Your task to perform on an android device: What is the recent news? Image 0: 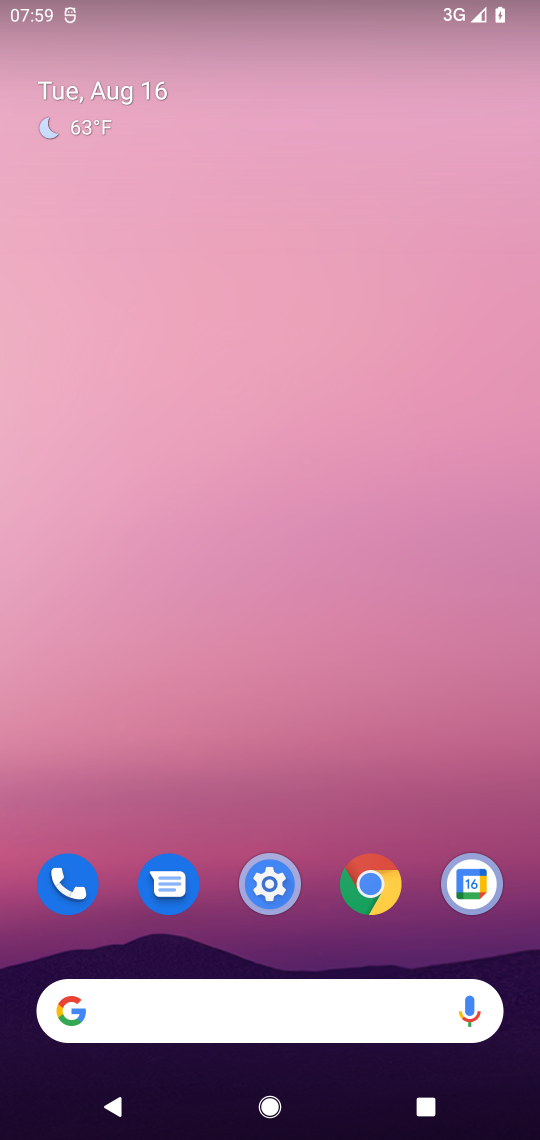
Step 0: press home button
Your task to perform on an android device: What is the recent news? Image 1: 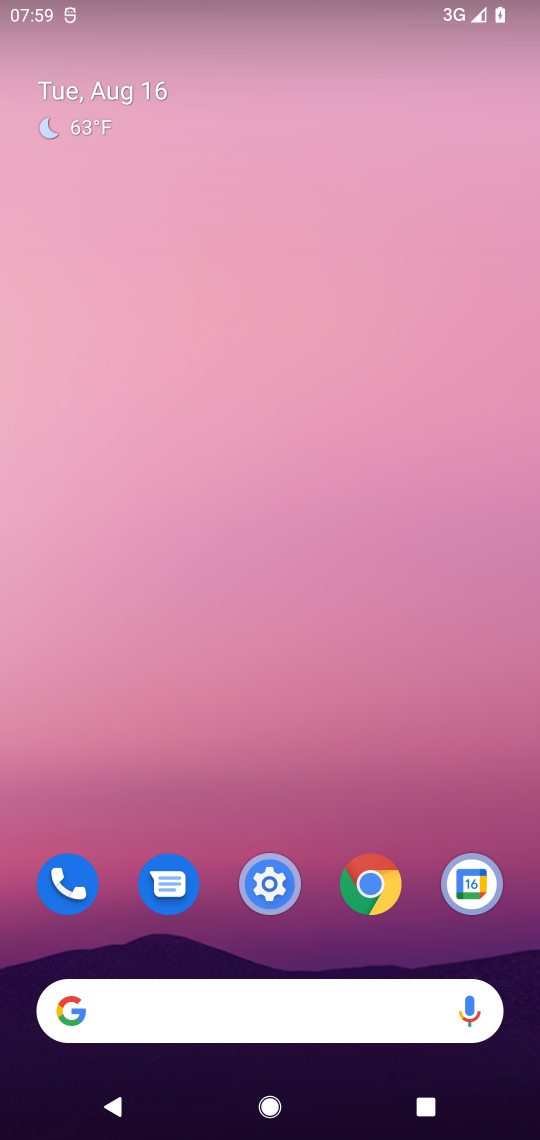
Step 1: click (82, 1018)
Your task to perform on an android device: What is the recent news? Image 2: 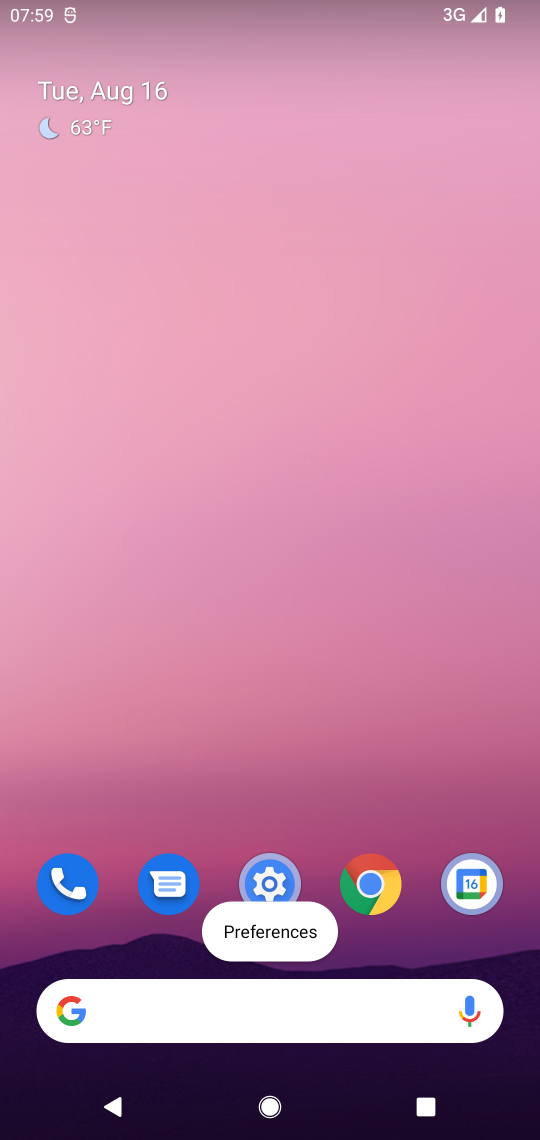
Step 2: click (69, 1008)
Your task to perform on an android device: What is the recent news? Image 3: 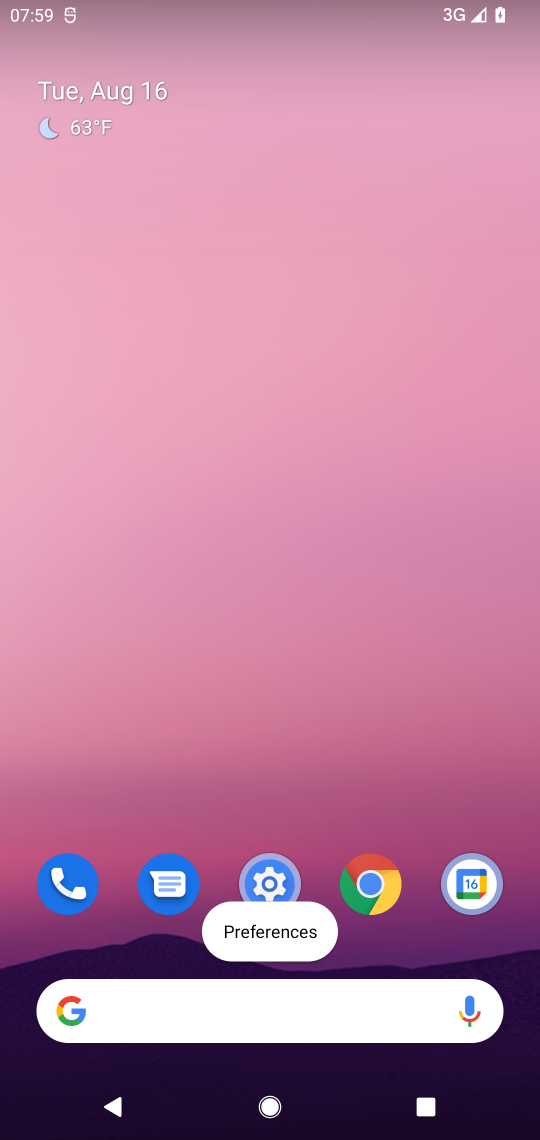
Step 3: click (66, 1012)
Your task to perform on an android device: What is the recent news? Image 4: 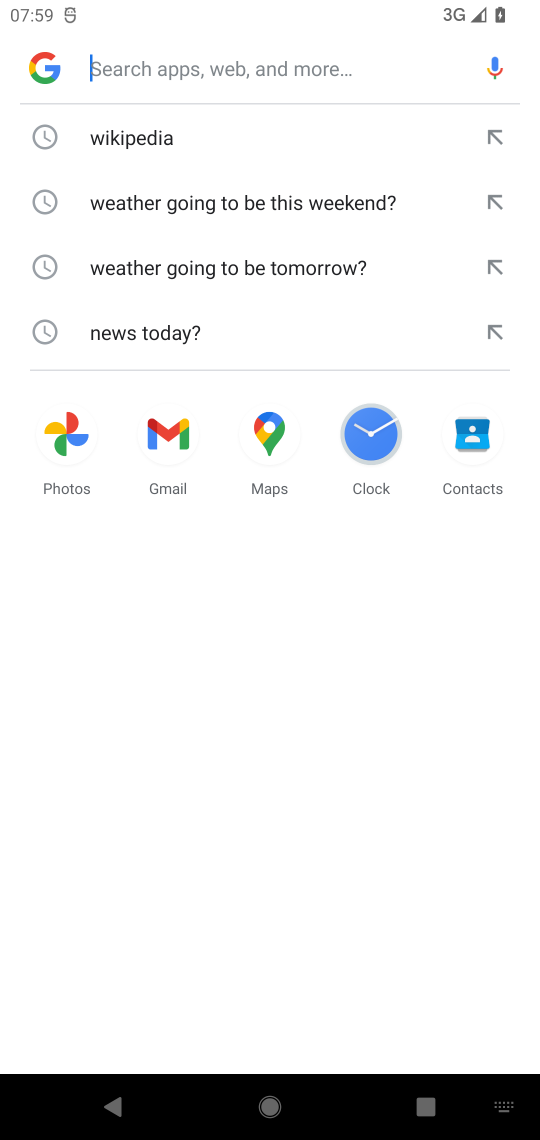
Step 4: type "recent news"
Your task to perform on an android device: What is the recent news? Image 5: 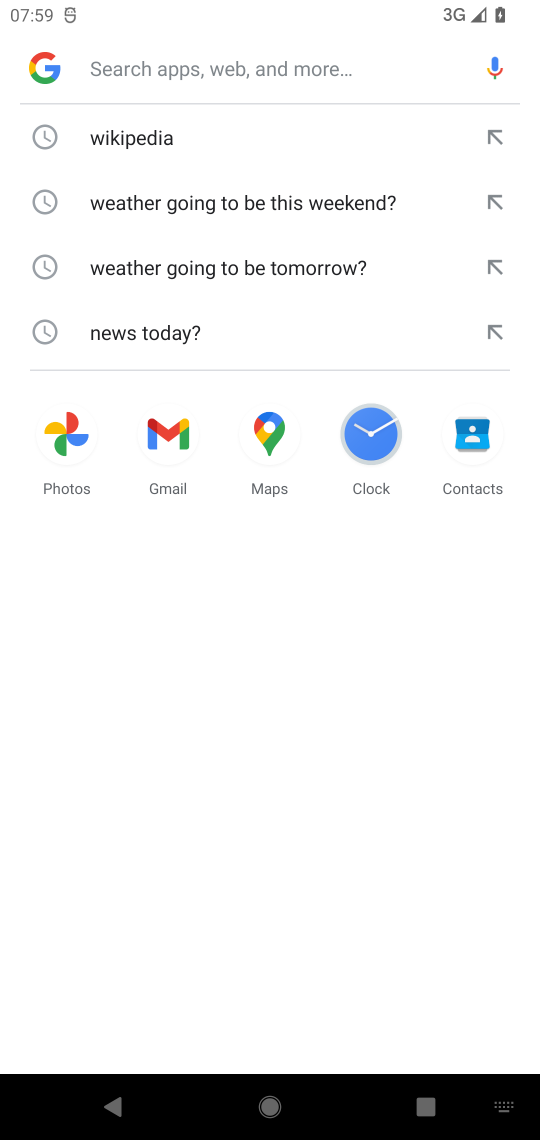
Step 5: click (176, 65)
Your task to perform on an android device: What is the recent news? Image 6: 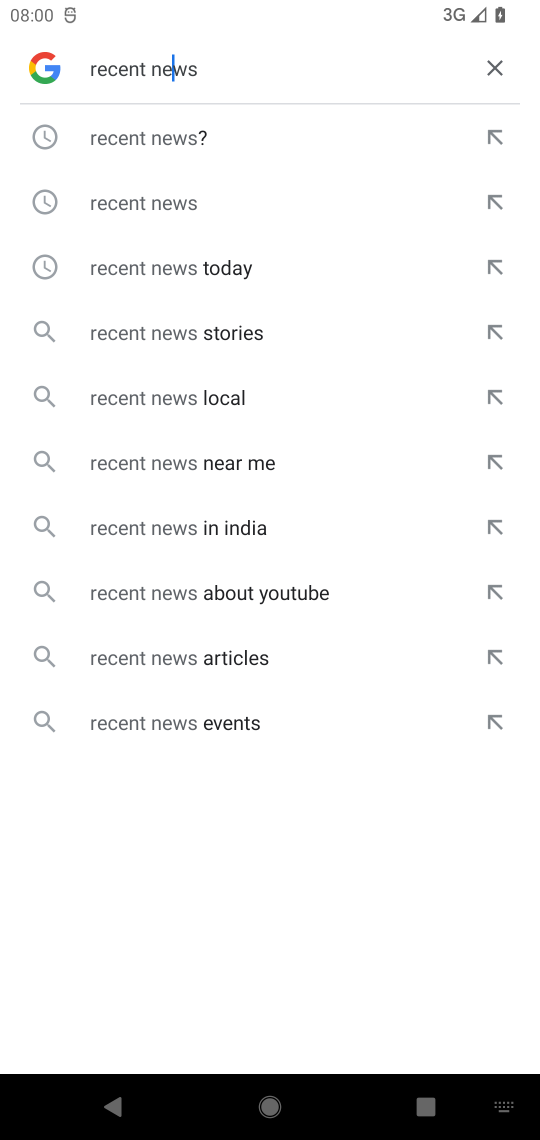
Step 6: click (151, 137)
Your task to perform on an android device: What is the recent news? Image 7: 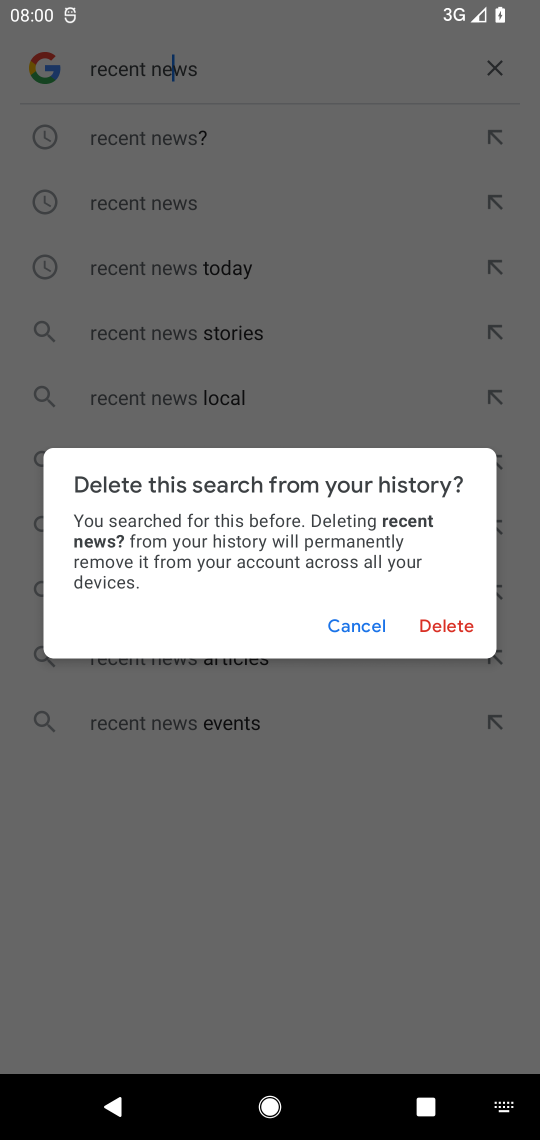
Step 7: click (369, 626)
Your task to perform on an android device: What is the recent news? Image 8: 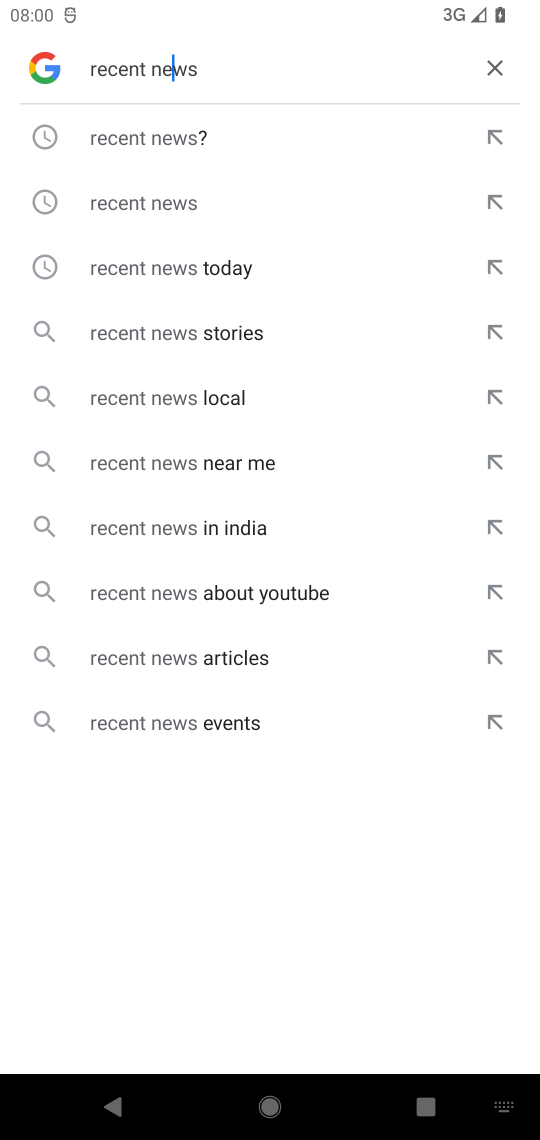
Step 8: press enter
Your task to perform on an android device: What is the recent news? Image 9: 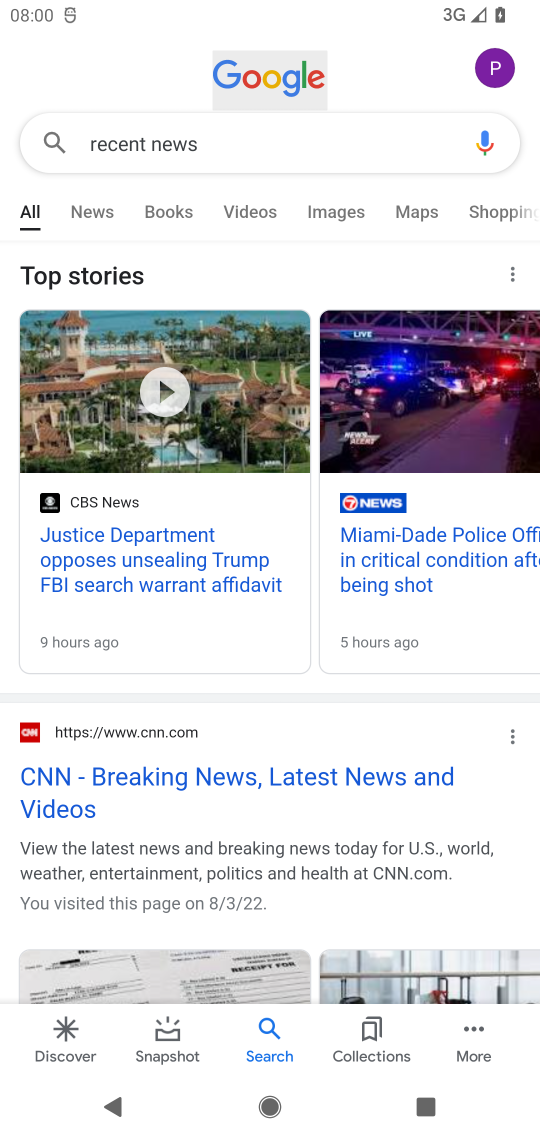
Step 9: task complete